Your task to perform on an android device: turn on translation in the chrome app Image 0: 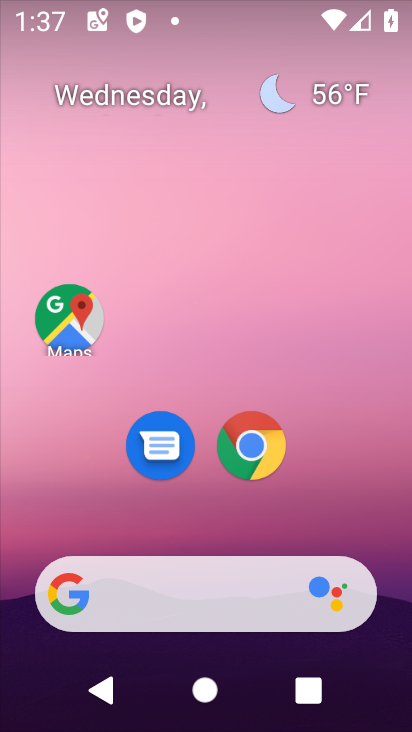
Step 0: click (247, 443)
Your task to perform on an android device: turn on translation in the chrome app Image 1: 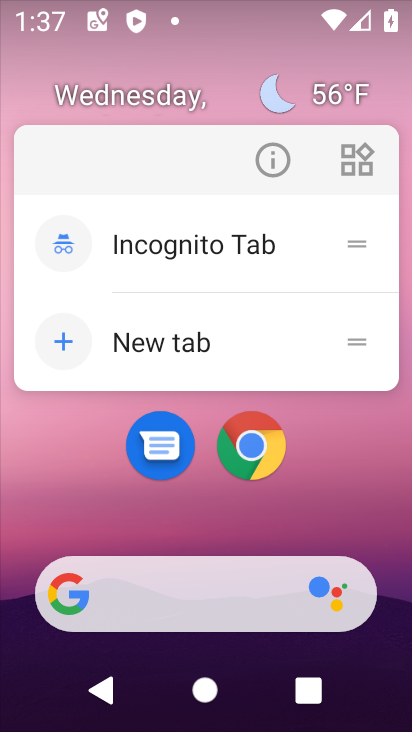
Step 1: click (259, 442)
Your task to perform on an android device: turn on translation in the chrome app Image 2: 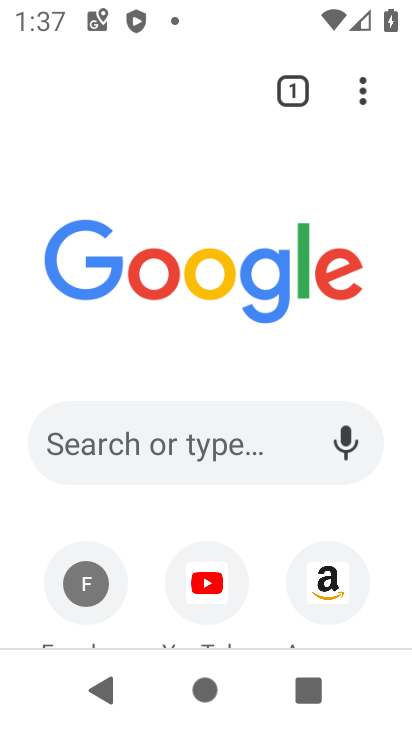
Step 2: drag from (363, 90) to (82, 481)
Your task to perform on an android device: turn on translation in the chrome app Image 3: 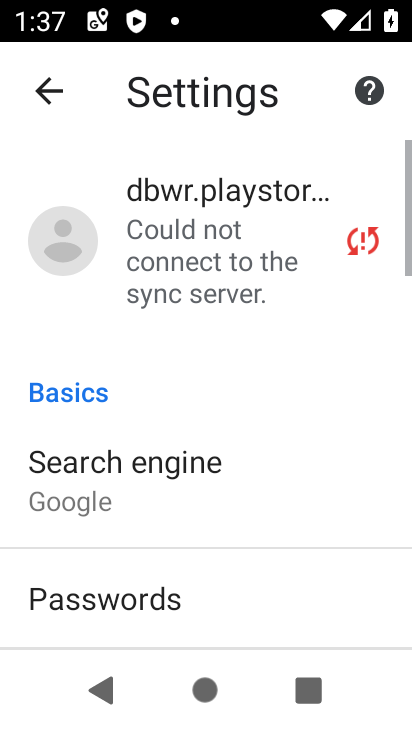
Step 3: drag from (177, 653) to (62, 12)
Your task to perform on an android device: turn on translation in the chrome app Image 4: 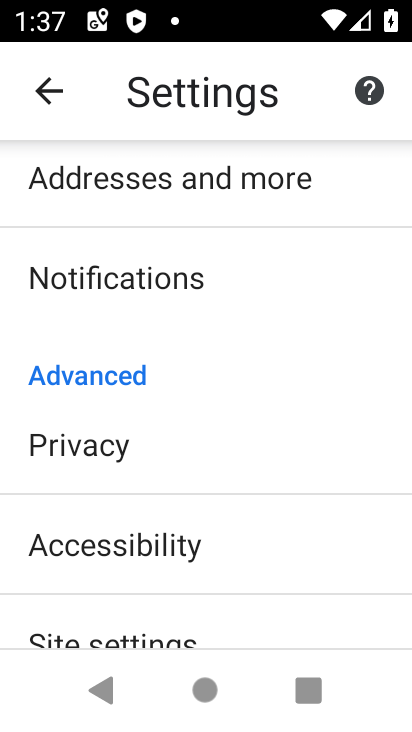
Step 4: click (149, 631)
Your task to perform on an android device: turn on translation in the chrome app Image 5: 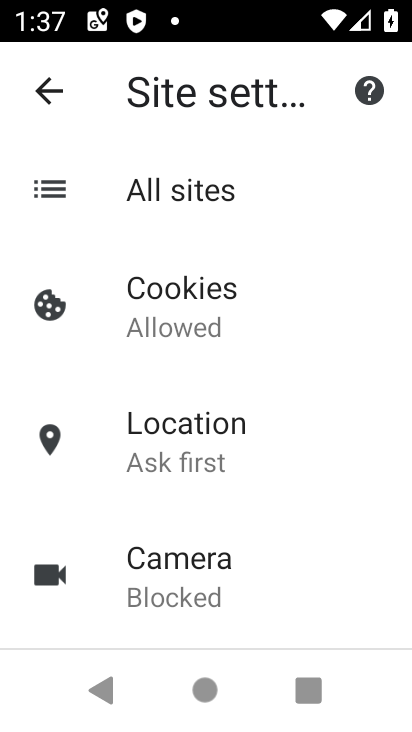
Step 5: click (42, 84)
Your task to perform on an android device: turn on translation in the chrome app Image 6: 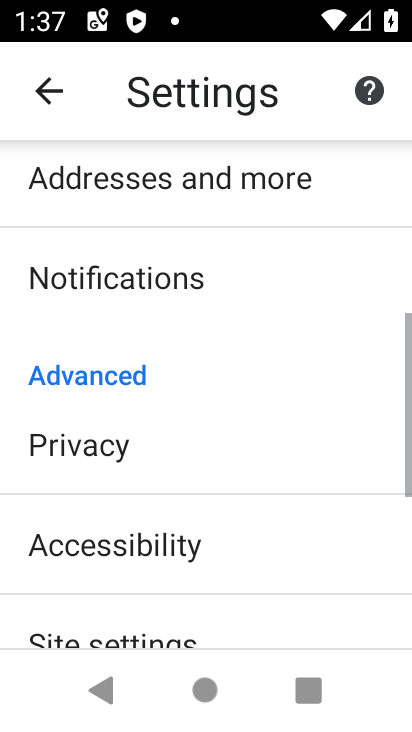
Step 6: drag from (175, 480) to (161, 1)
Your task to perform on an android device: turn on translation in the chrome app Image 7: 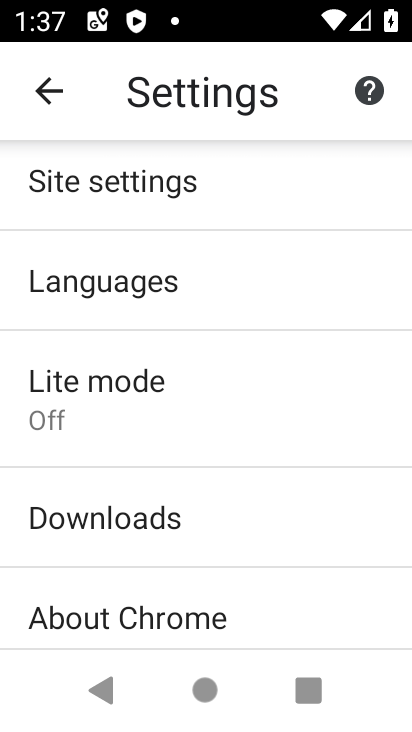
Step 7: click (111, 285)
Your task to perform on an android device: turn on translation in the chrome app Image 8: 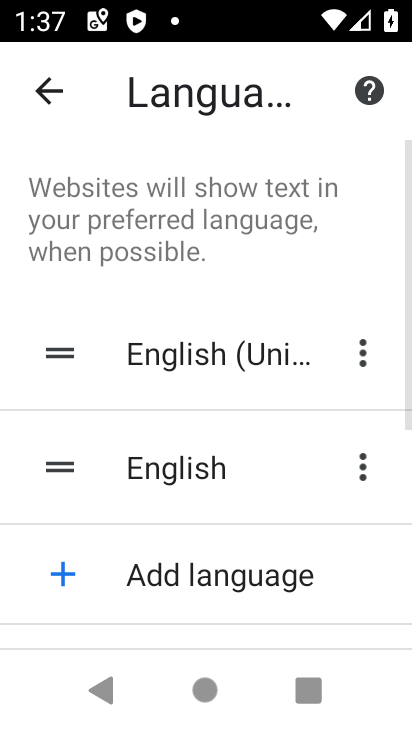
Step 8: task complete